Your task to perform on an android device: Open CNN.com Image 0: 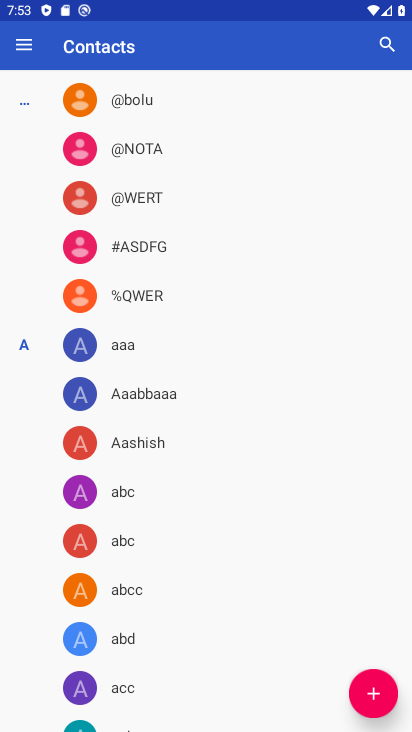
Step 0: press home button
Your task to perform on an android device: Open CNN.com Image 1: 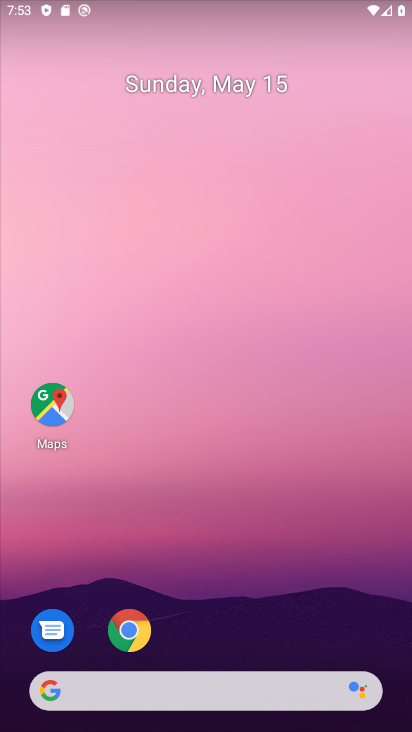
Step 1: drag from (208, 631) to (281, 29)
Your task to perform on an android device: Open CNN.com Image 2: 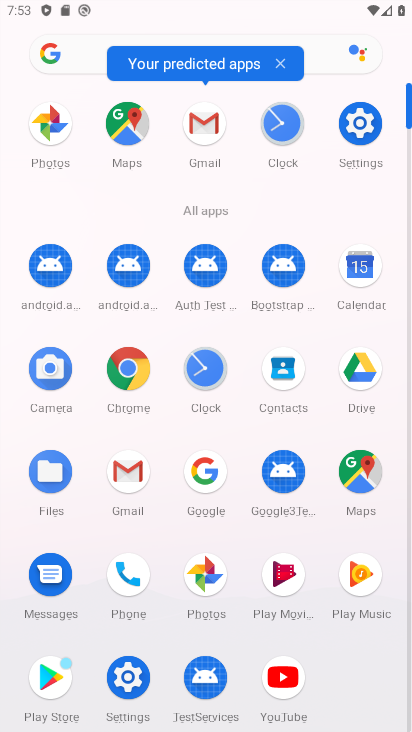
Step 2: click (125, 371)
Your task to perform on an android device: Open CNN.com Image 3: 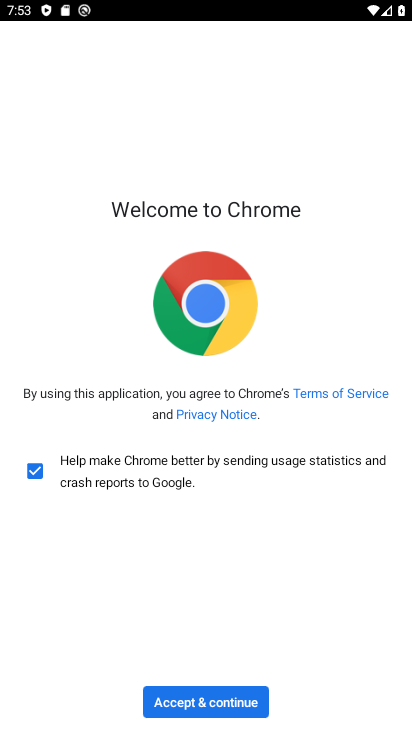
Step 3: click (191, 699)
Your task to perform on an android device: Open CNN.com Image 4: 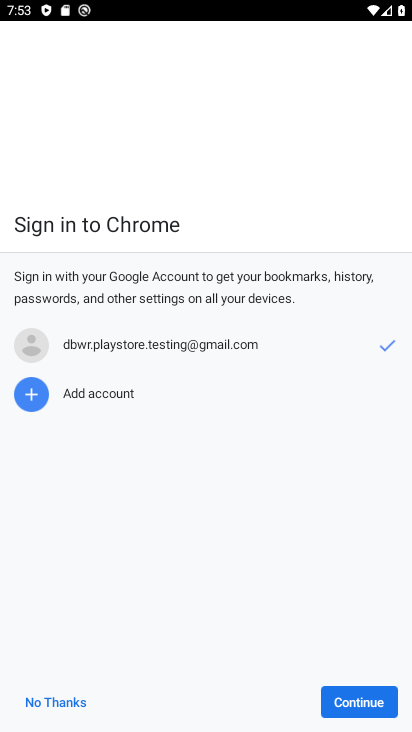
Step 4: click (329, 693)
Your task to perform on an android device: Open CNN.com Image 5: 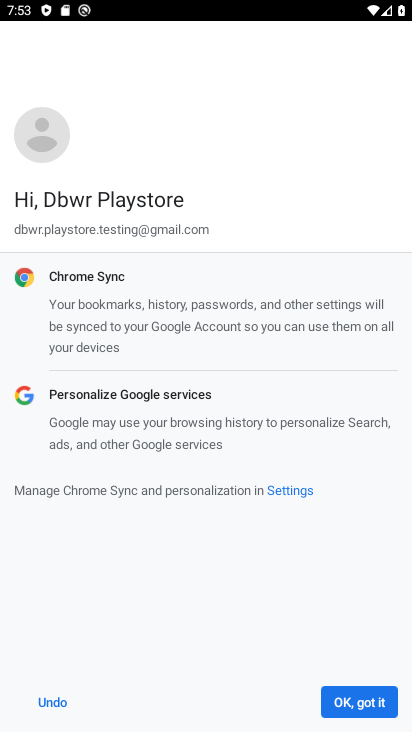
Step 5: click (372, 707)
Your task to perform on an android device: Open CNN.com Image 6: 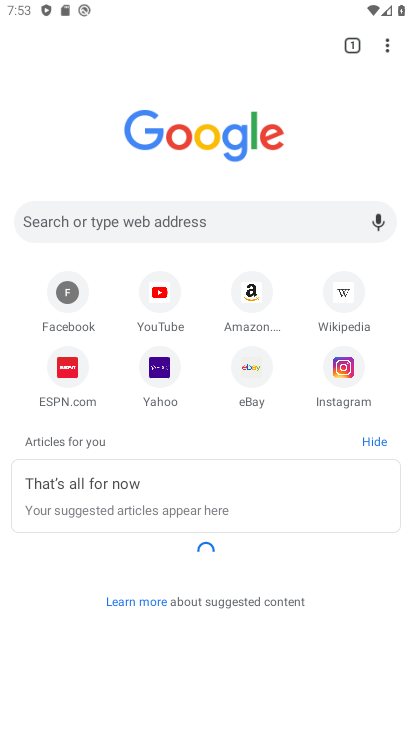
Step 6: click (172, 220)
Your task to perform on an android device: Open CNN.com Image 7: 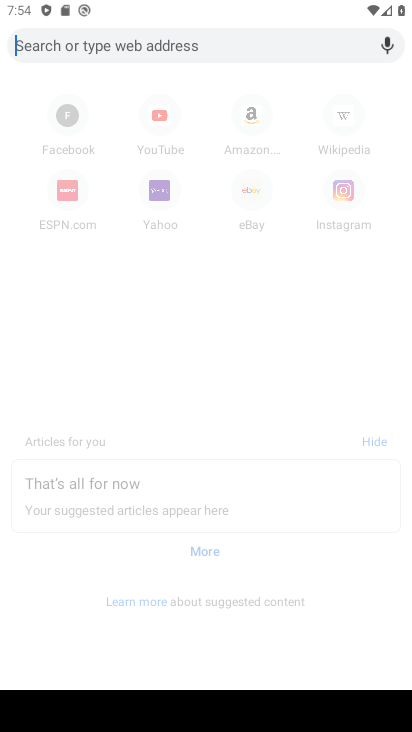
Step 7: type "CNN.com"
Your task to perform on an android device: Open CNN.com Image 8: 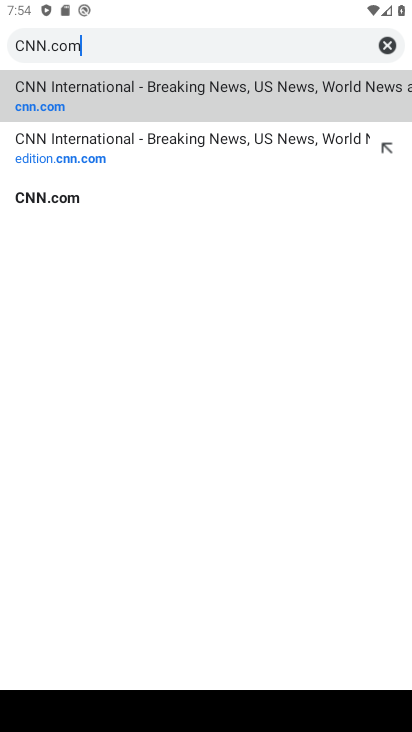
Step 8: click (43, 217)
Your task to perform on an android device: Open CNN.com Image 9: 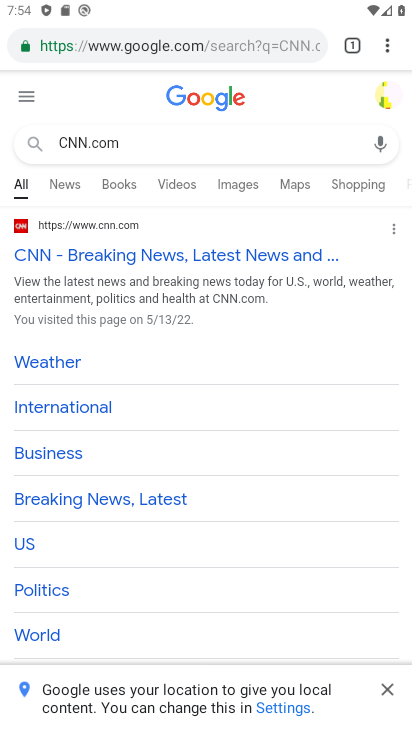
Step 9: task complete